Your task to perform on an android device: turn notification dots off Image 0: 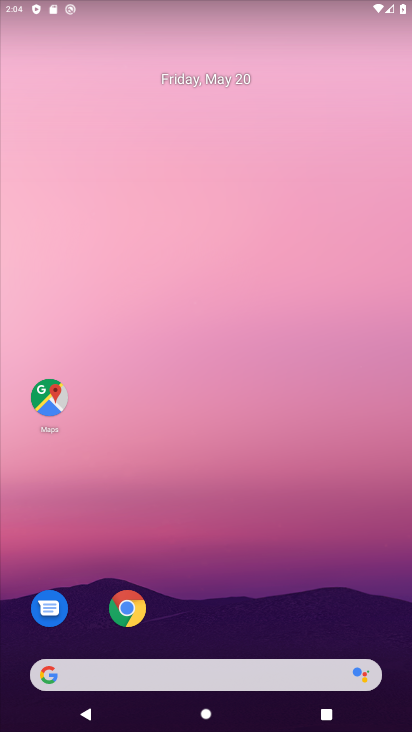
Step 0: drag from (251, 597) to (333, 139)
Your task to perform on an android device: turn notification dots off Image 1: 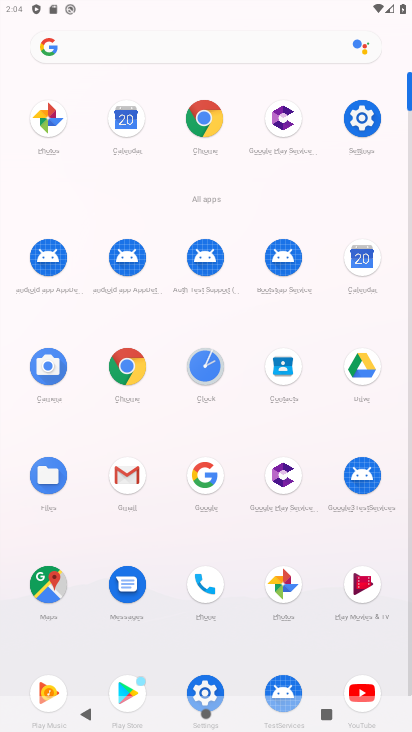
Step 1: click (357, 124)
Your task to perform on an android device: turn notification dots off Image 2: 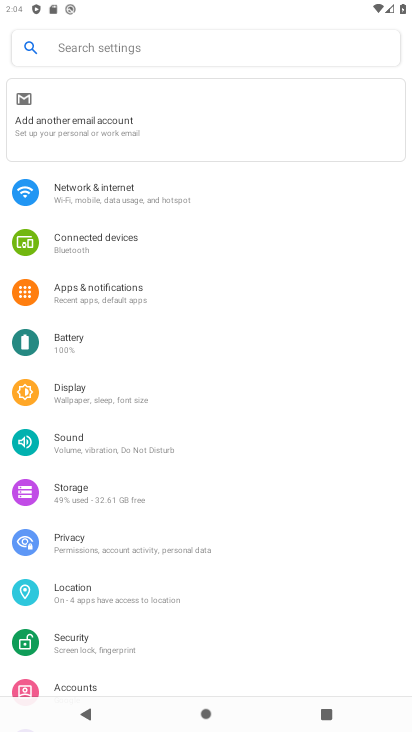
Step 2: click (136, 284)
Your task to perform on an android device: turn notification dots off Image 3: 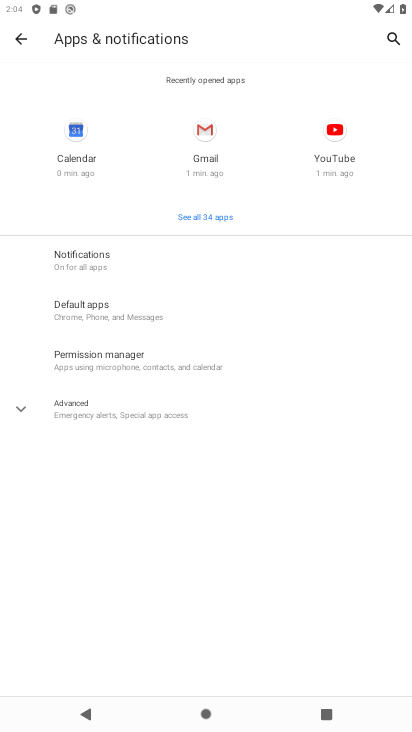
Step 3: click (109, 267)
Your task to perform on an android device: turn notification dots off Image 4: 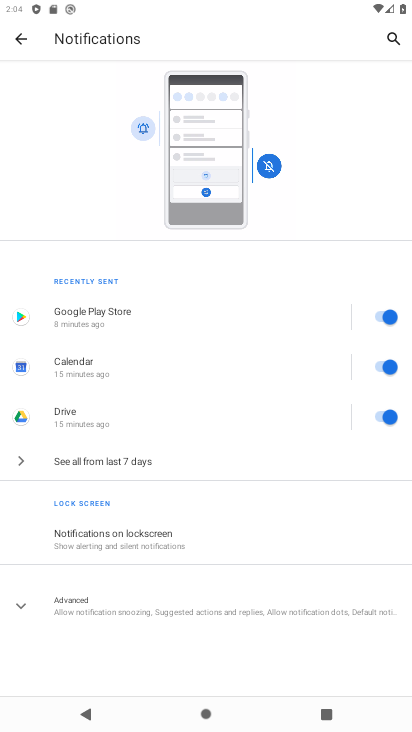
Step 4: drag from (205, 596) to (264, 167)
Your task to perform on an android device: turn notification dots off Image 5: 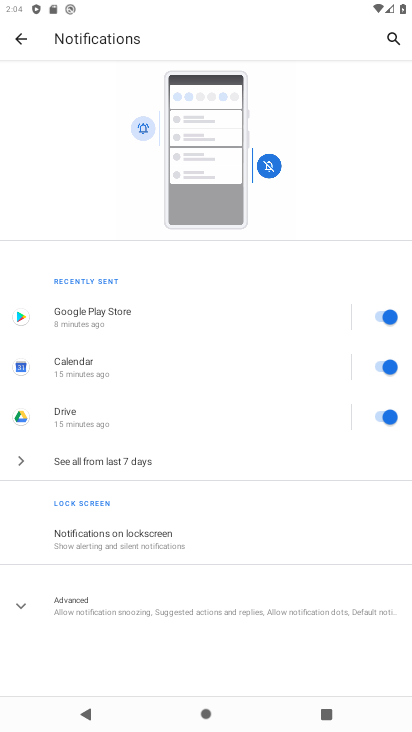
Step 5: drag from (240, 552) to (236, 184)
Your task to perform on an android device: turn notification dots off Image 6: 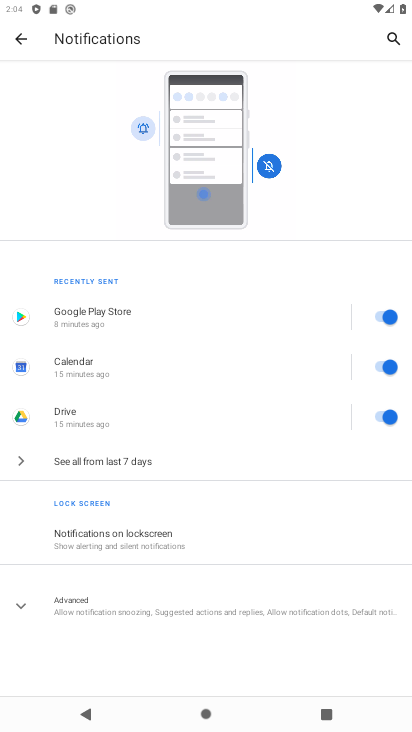
Step 6: click (127, 611)
Your task to perform on an android device: turn notification dots off Image 7: 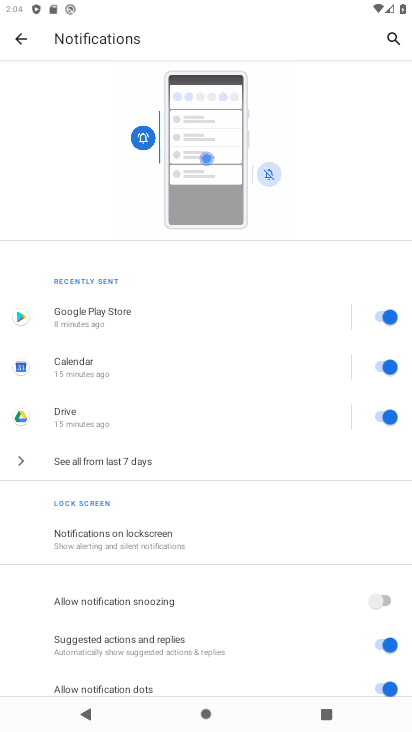
Step 7: drag from (144, 616) to (200, 280)
Your task to perform on an android device: turn notification dots off Image 8: 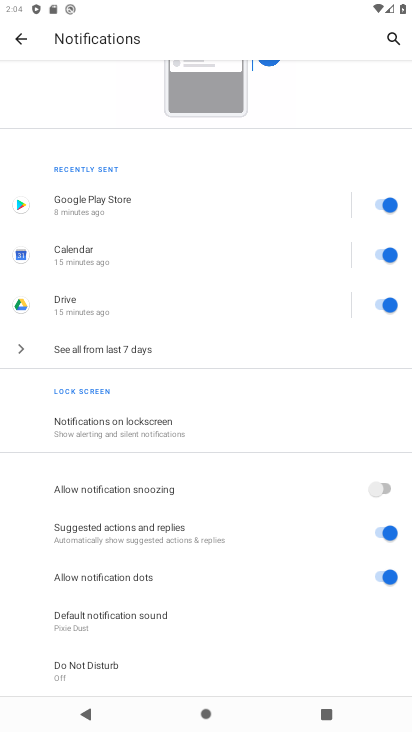
Step 8: click (385, 574)
Your task to perform on an android device: turn notification dots off Image 9: 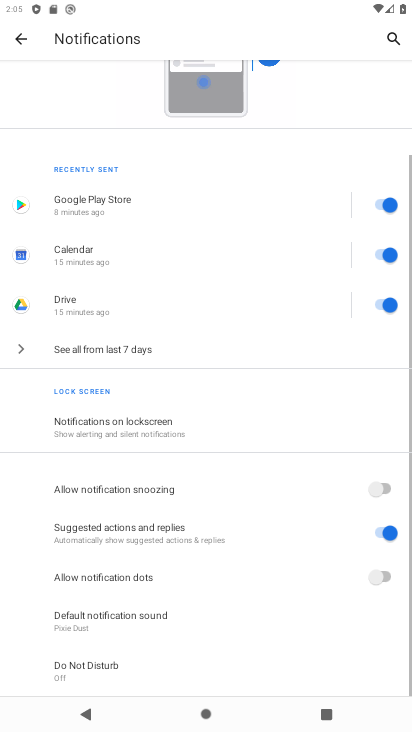
Step 9: task complete